Your task to perform on an android device: What's the weather today? Image 0: 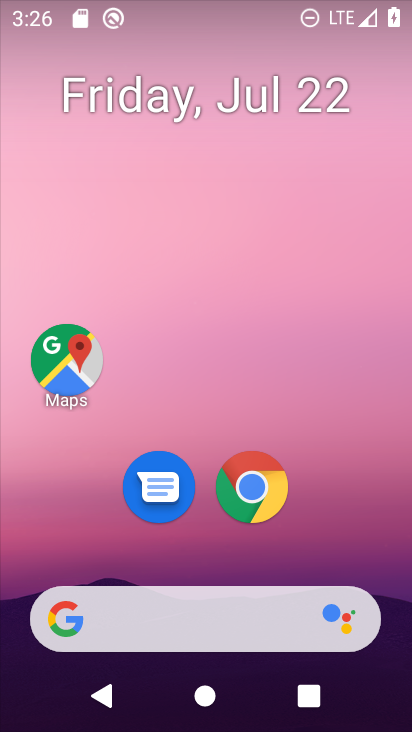
Step 0: click (178, 621)
Your task to perform on an android device: What's the weather today? Image 1: 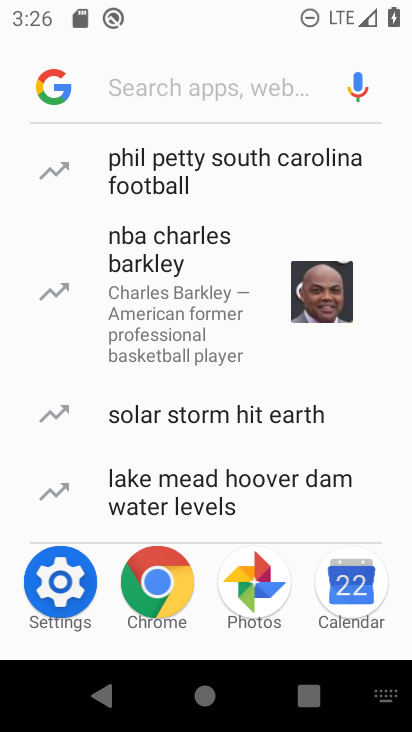
Step 1: click (163, 85)
Your task to perform on an android device: What's the weather today? Image 2: 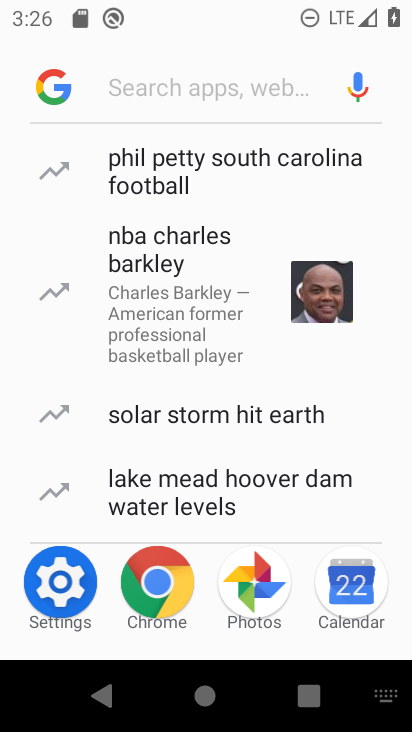
Step 2: type "weather"
Your task to perform on an android device: What's the weather today? Image 3: 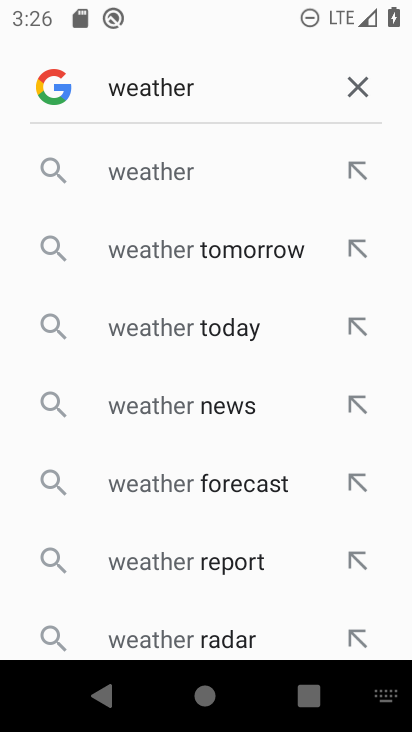
Step 3: click (155, 169)
Your task to perform on an android device: What's the weather today? Image 4: 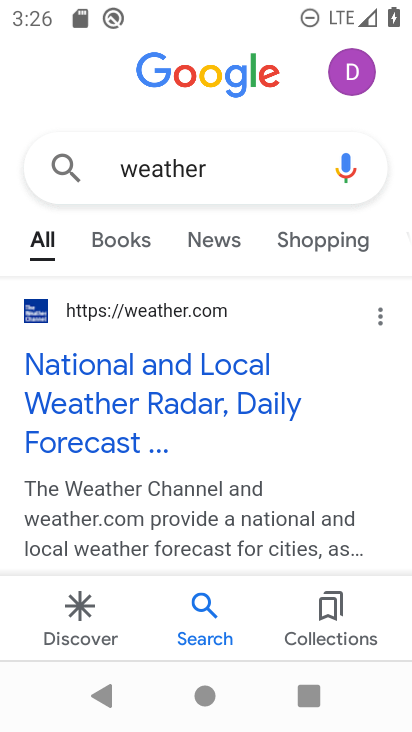
Step 4: click (134, 398)
Your task to perform on an android device: What's the weather today? Image 5: 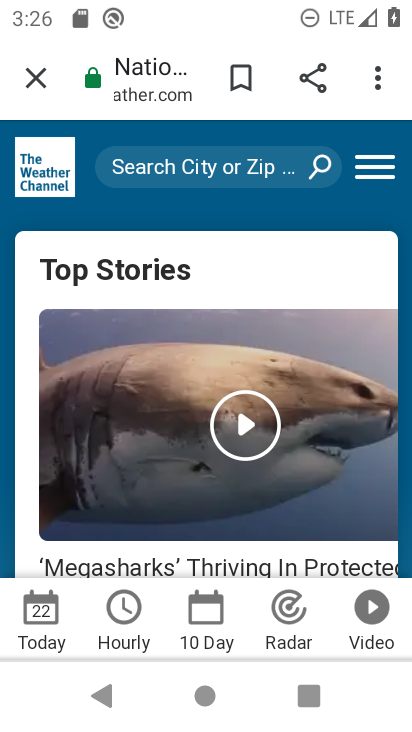
Step 5: drag from (137, 582) to (183, 280)
Your task to perform on an android device: What's the weather today? Image 6: 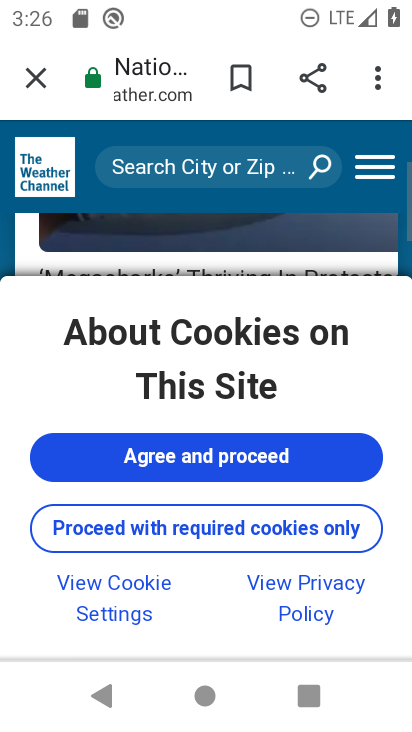
Step 6: drag from (181, 308) to (129, 727)
Your task to perform on an android device: What's the weather today? Image 7: 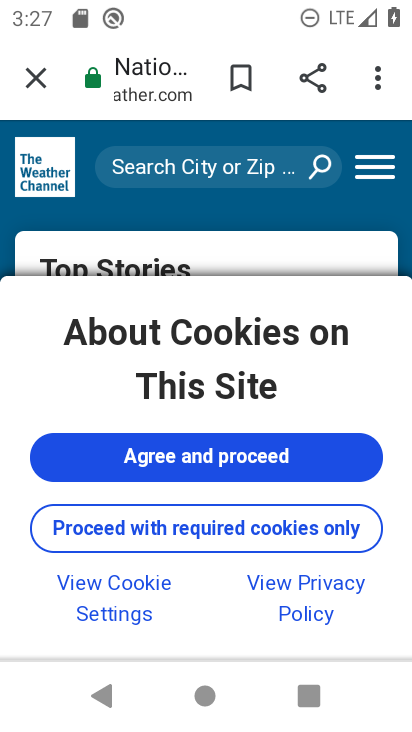
Step 7: click (198, 463)
Your task to perform on an android device: What's the weather today? Image 8: 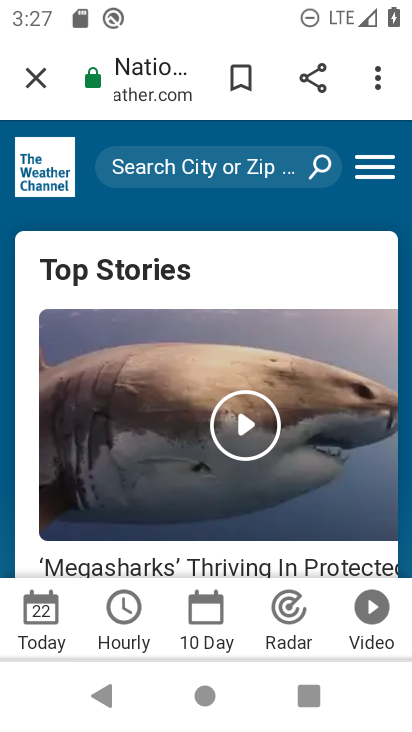
Step 8: click (52, 617)
Your task to perform on an android device: What's the weather today? Image 9: 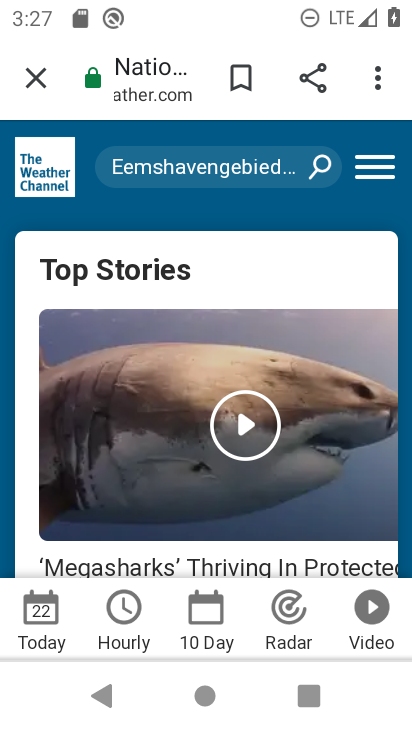
Step 9: click (34, 603)
Your task to perform on an android device: What's the weather today? Image 10: 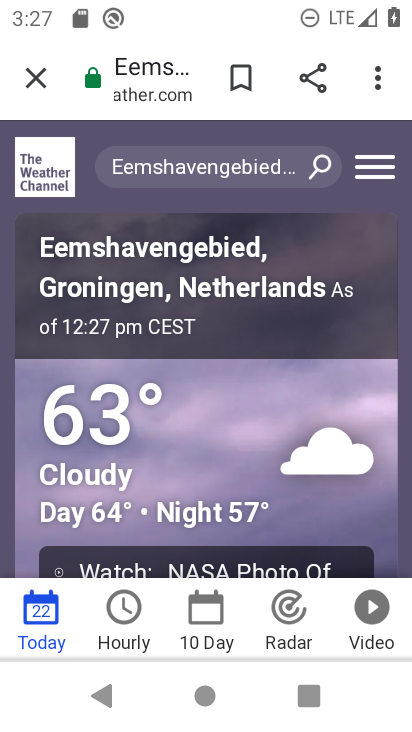
Step 10: task complete